Your task to perform on an android device: change the upload size in google photos Image 0: 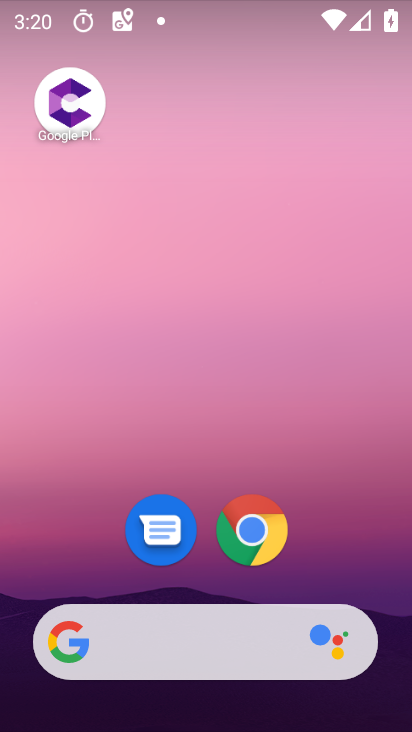
Step 0: drag from (324, 516) to (372, 146)
Your task to perform on an android device: change the upload size in google photos Image 1: 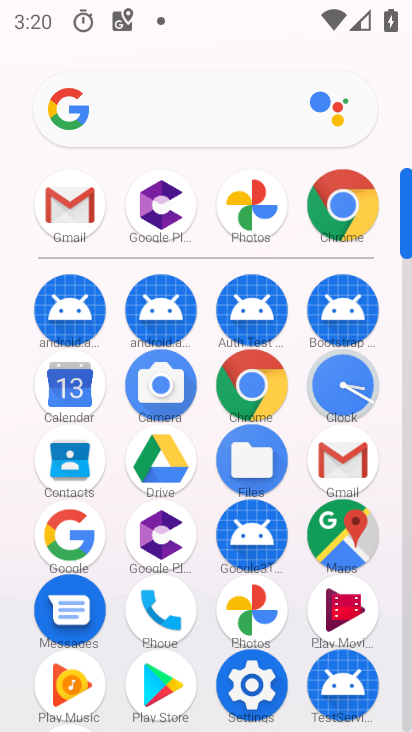
Step 1: click (246, 616)
Your task to perform on an android device: change the upload size in google photos Image 2: 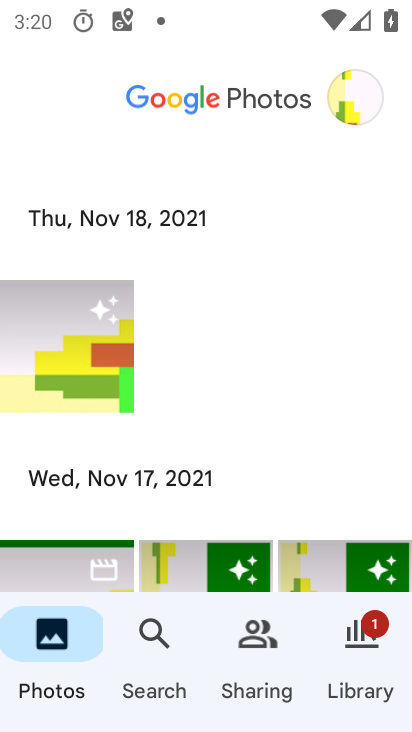
Step 2: click (363, 105)
Your task to perform on an android device: change the upload size in google photos Image 3: 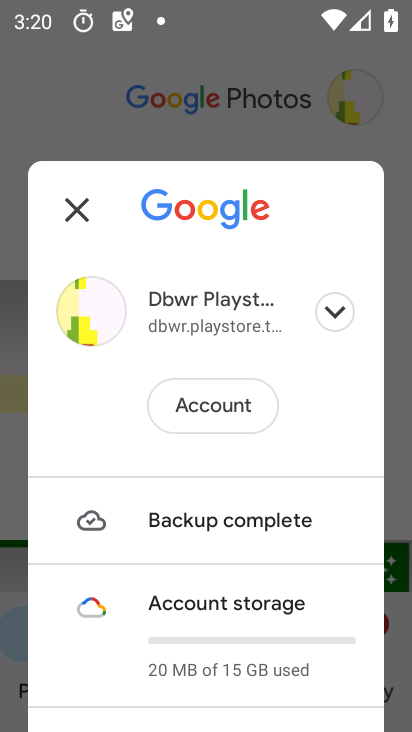
Step 3: drag from (282, 595) to (347, 205)
Your task to perform on an android device: change the upload size in google photos Image 4: 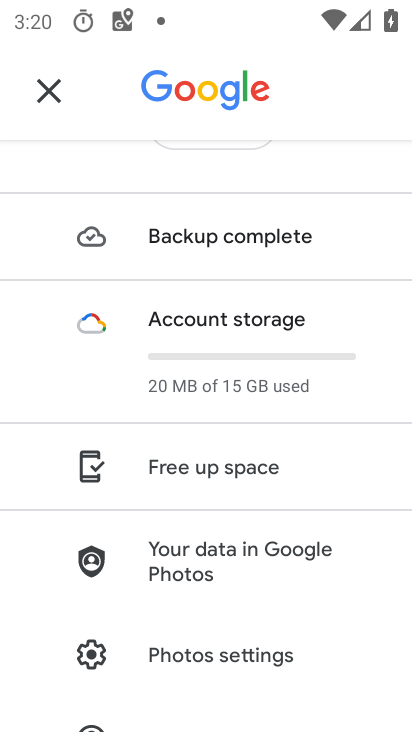
Step 4: click (202, 654)
Your task to perform on an android device: change the upload size in google photos Image 5: 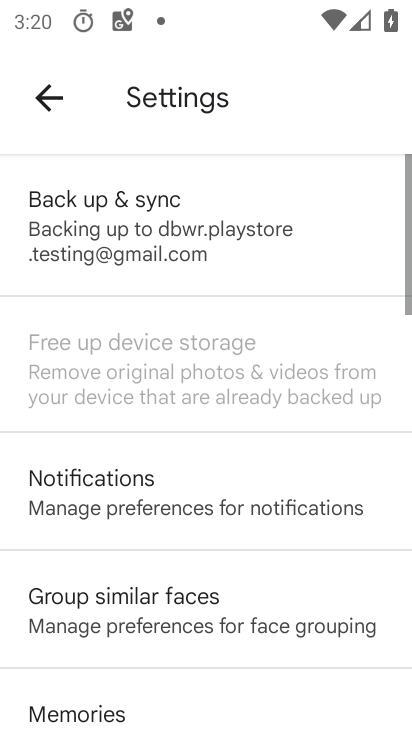
Step 5: click (211, 238)
Your task to perform on an android device: change the upload size in google photos Image 6: 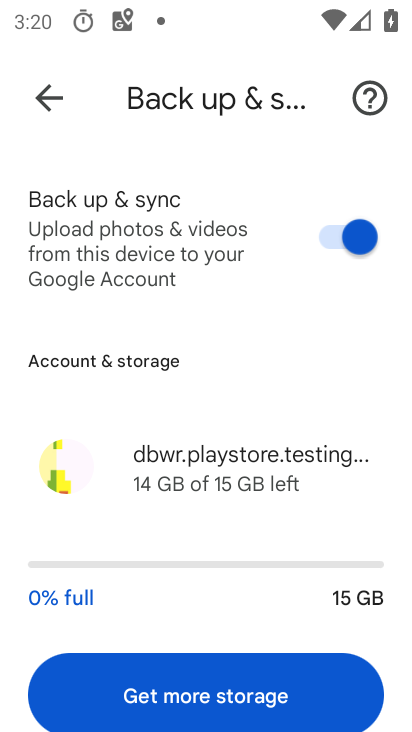
Step 6: drag from (261, 513) to (288, 87)
Your task to perform on an android device: change the upload size in google photos Image 7: 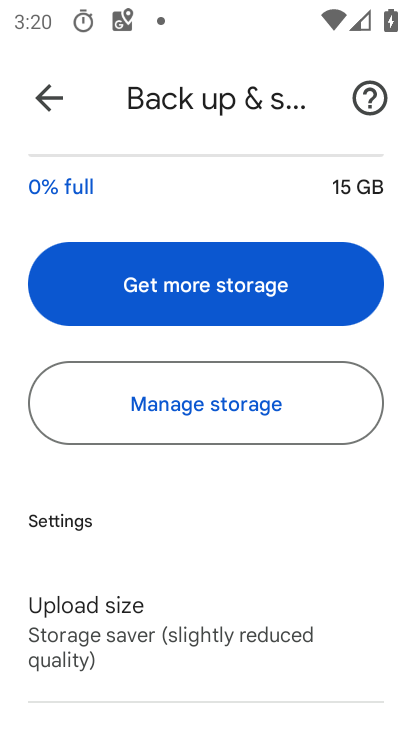
Step 7: click (166, 633)
Your task to perform on an android device: change the upload size in google photos Image 8: 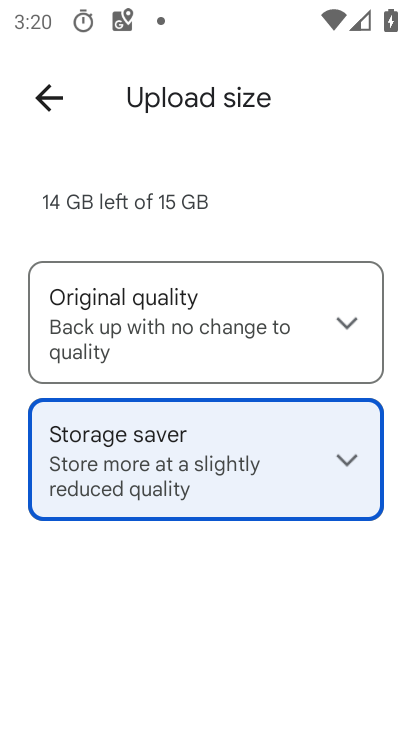
Step 8: click (201, 322)
Your task to perform on an android device: change the upload size in google photos Image 9: 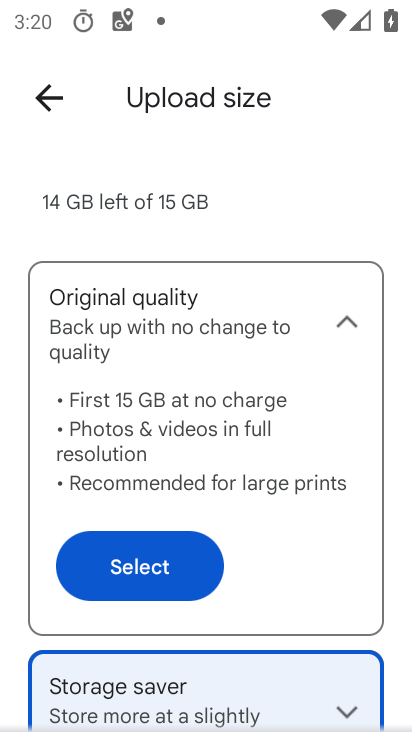
Step 9: click (167, 591)
Your task to perform on an android device: change the upload size in google photos Image 10: 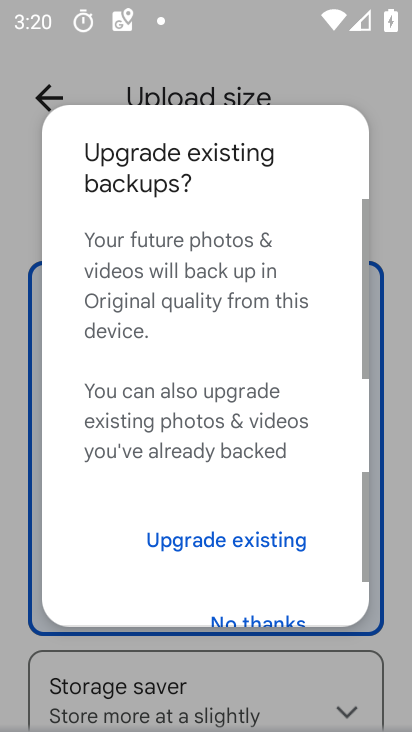
Step 10: task complete